Your task to perform on an android device: allow cookies in the chrome app Image 0: 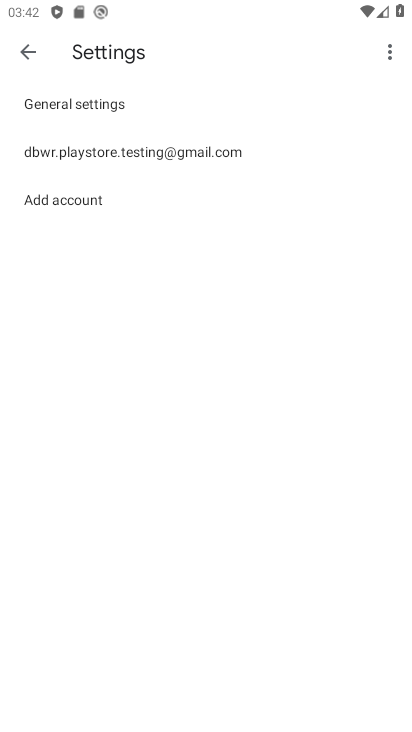
Step 0: press home button
Your task to perform on an android device: allow cookies in the chrome app Image 1: 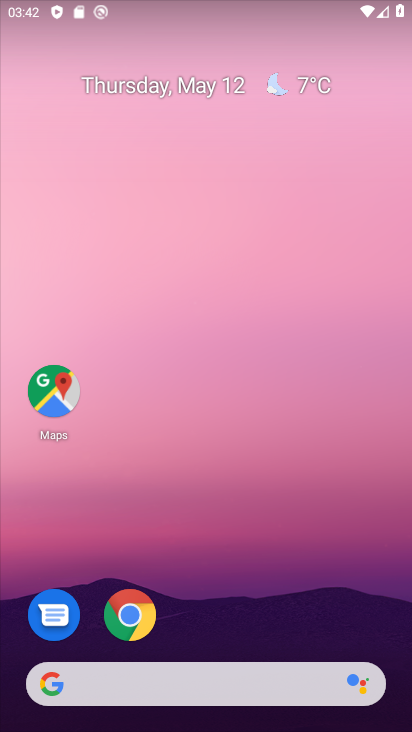
Step 1: click (144, 616)
Your task to perform on an android device: allow cookies in the chrome app Image 2: 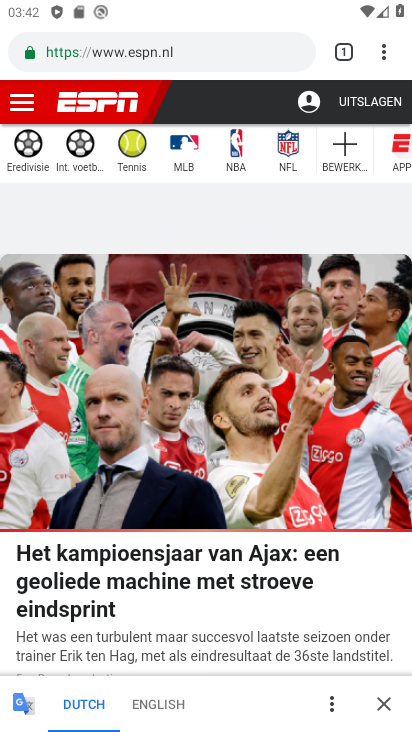
Step 2: click (389, 43)
Your task to perform on an android device: allow cookies in the chrome app Image 3: 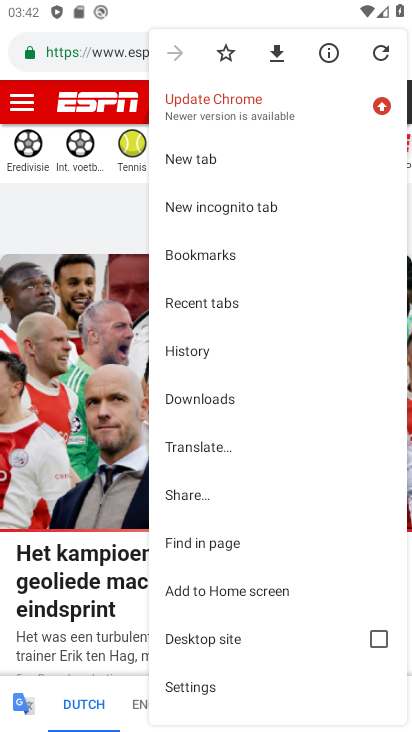
Step 3: click (206, 680)
Your task to perform on an android device: allow cookies in the chrome app Image 4: 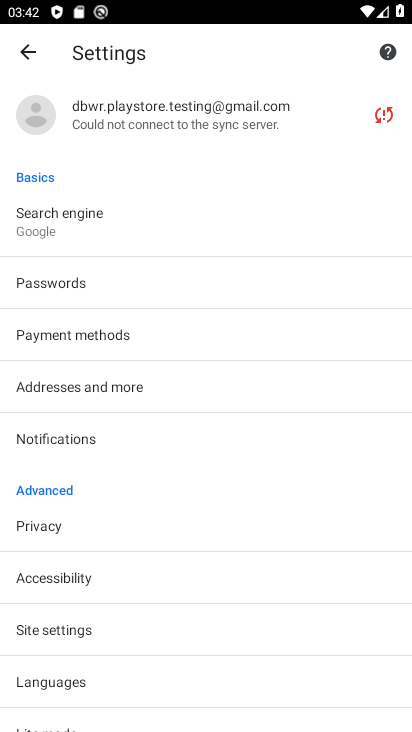
Step 4: click (116, 628)
Your task to perform on an android device: allow cookies in the chrome app Image 5: 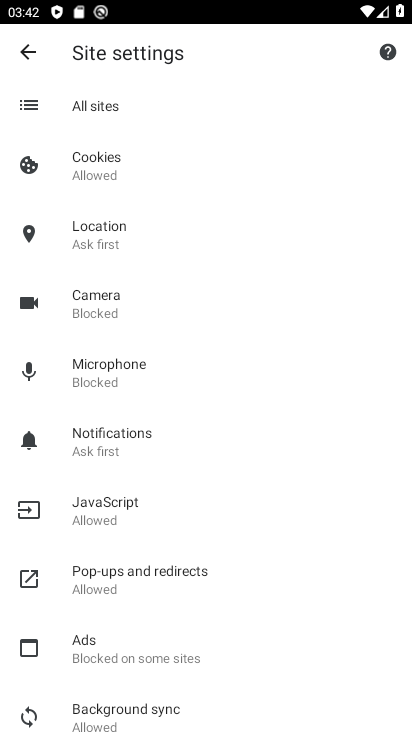
Step 5: click (126, 154)
Your task to perform on an android device: allow cookies in the chrome app Image 6: 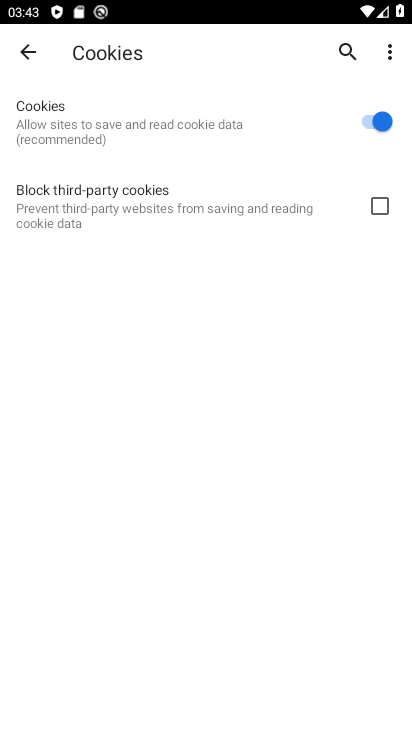
Step 6: task complete